Your task to perform on an android device: Search for Mexican restaurants on Maps Image 0: 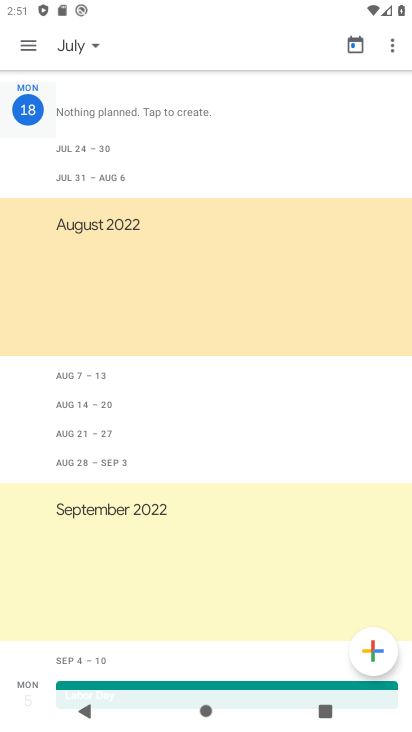
Step 0: press home button
Your task to perform on an android device: Search for Mexican restaurants on Maps Image 1: 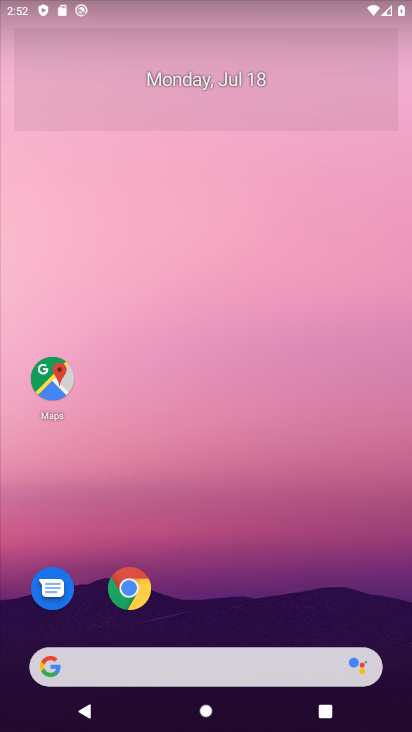
Step 1: click (63, 377)
Your task to perform on an android device: Search for Mexican restaurants on Maps Image 2: 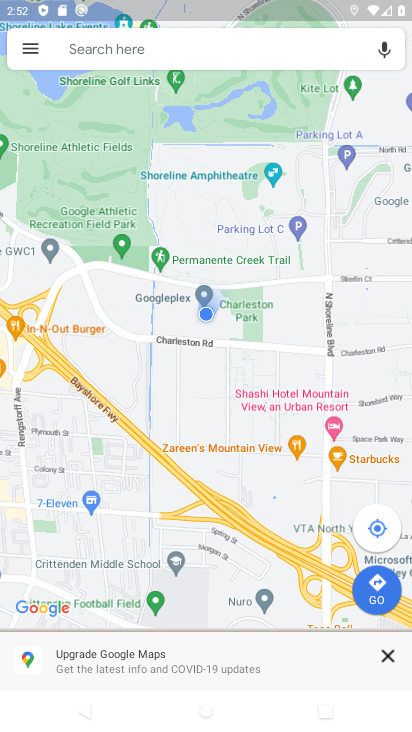
Step 2: click (147, 56)
Your task to perform on an android device: Search for Mexican restaurants on Maps Image 3: 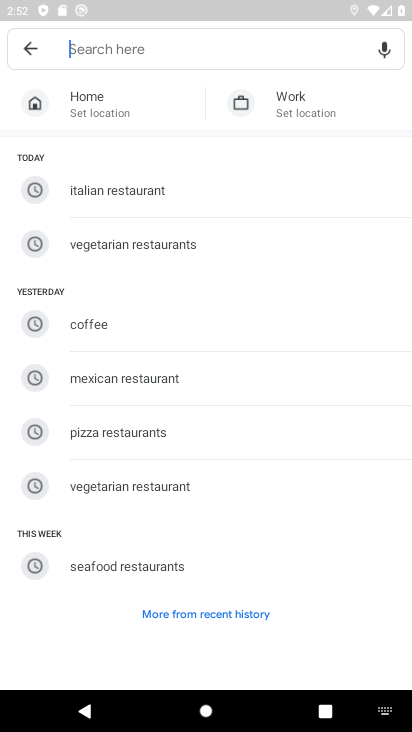
Step 3: type "mexican"
Your task to perform on an android device: Search for Mexican restaurants on Maps Image 4: 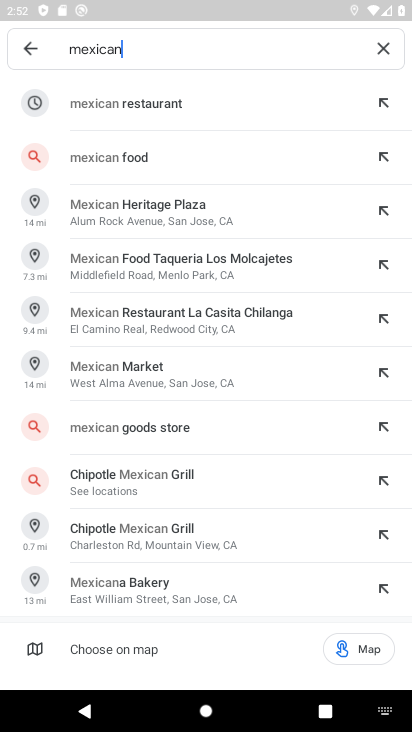
Step 4: click (171, 116)
Your task to perform on an android device: Search for Mexican restaurants on Maps Image 5: 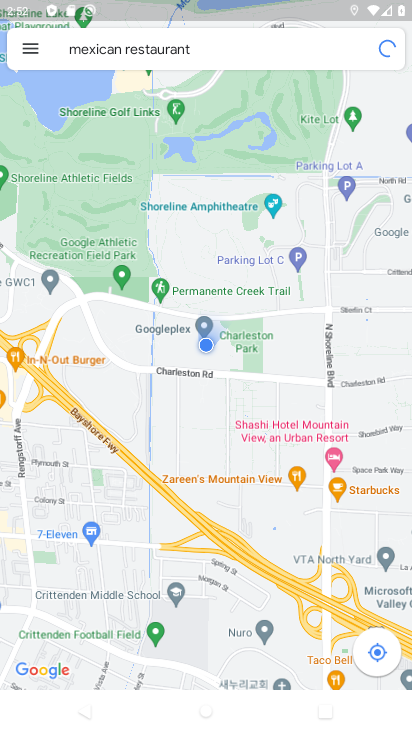
Step 5: task complete